Your task to perform on an android device: See recent photos Image 0: 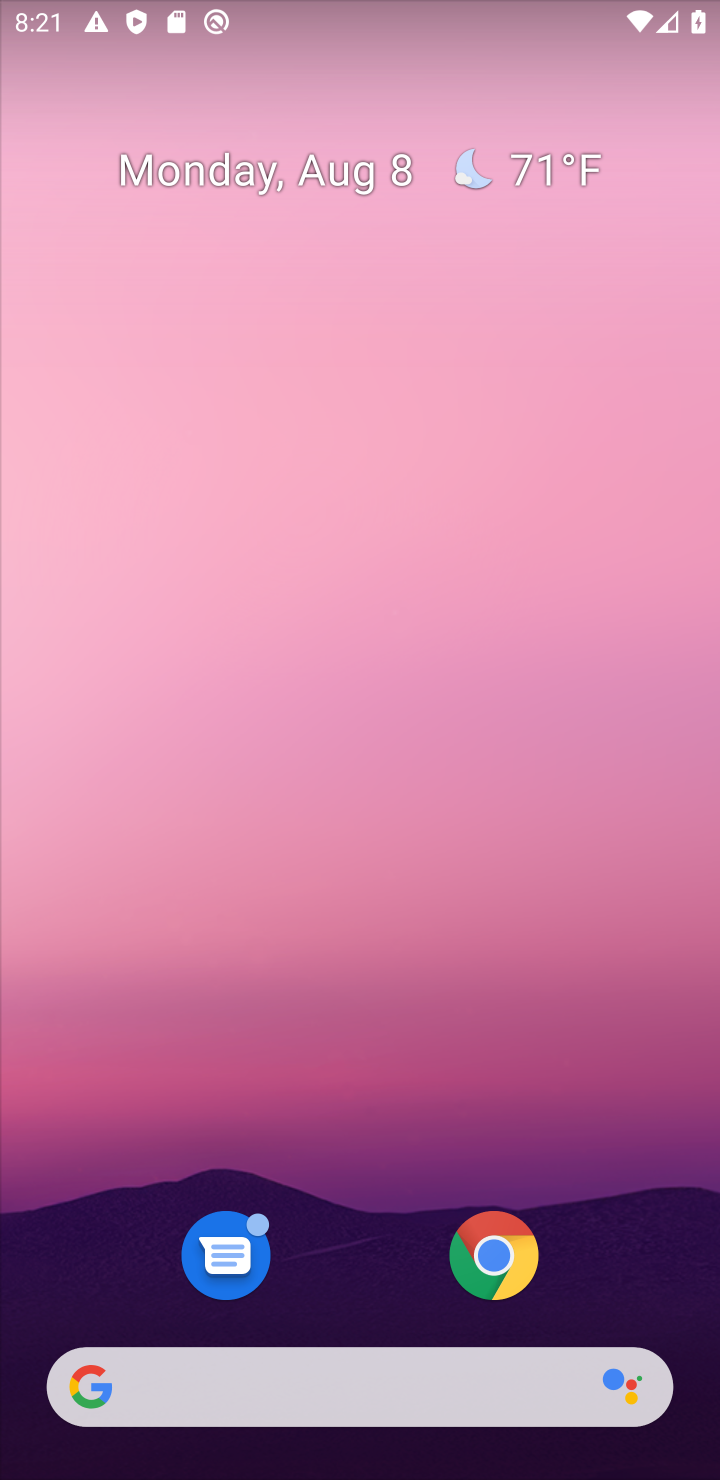
Step 0: drag from (379, 1298) to (365, 45)
Your task to perform on an android device: See recent photos Image 1: 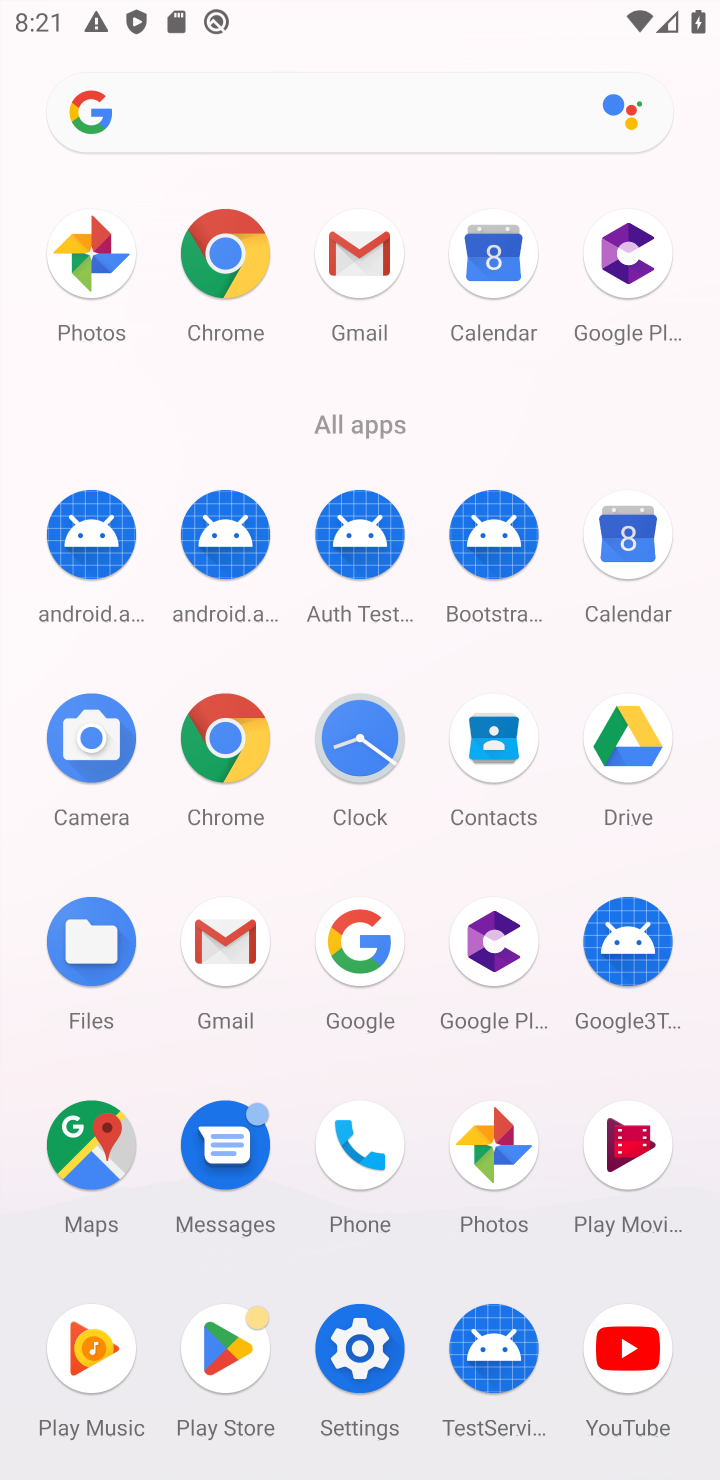
Step 1: click (488, 1134)
Your task to perform on an android device: See recent photos Image 2: 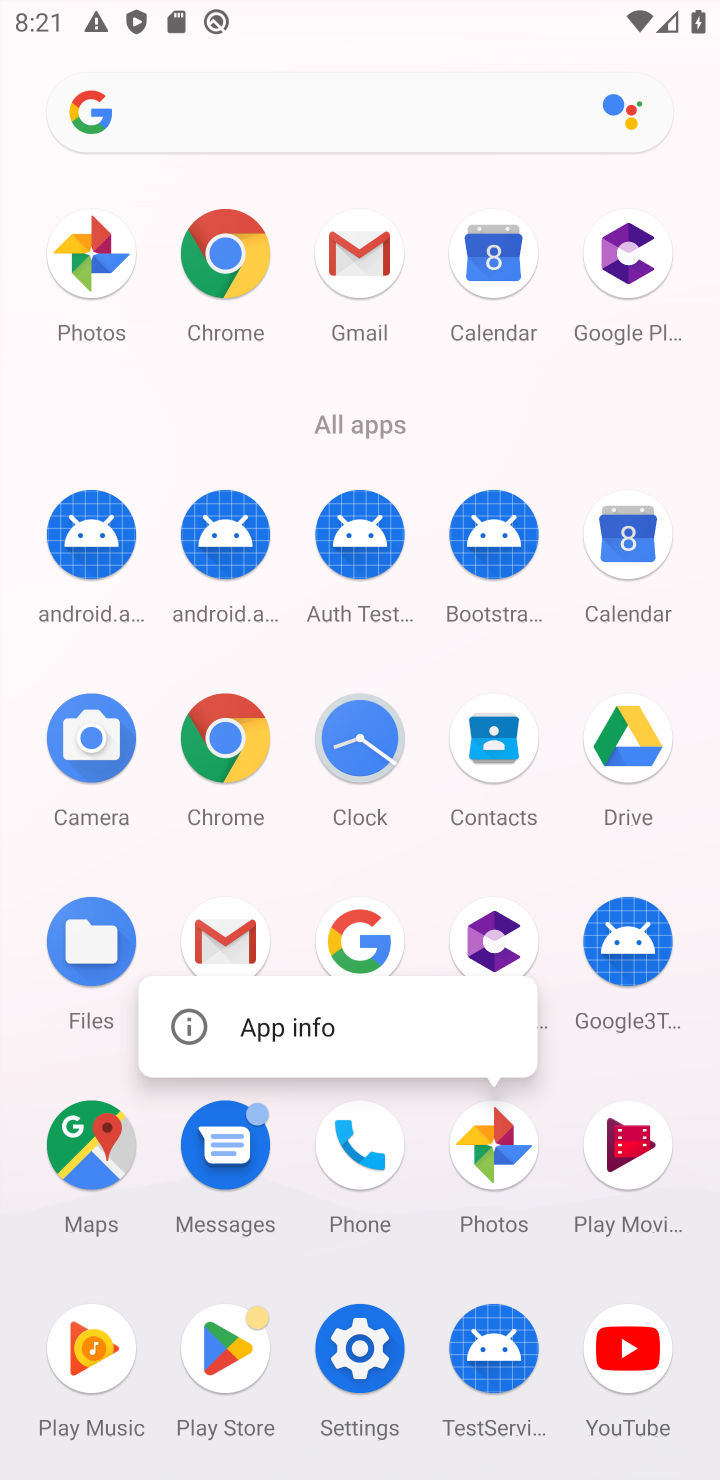
Step 2: click (488, 1134)
Your task to perform on an android device: See recent photos Image 3: 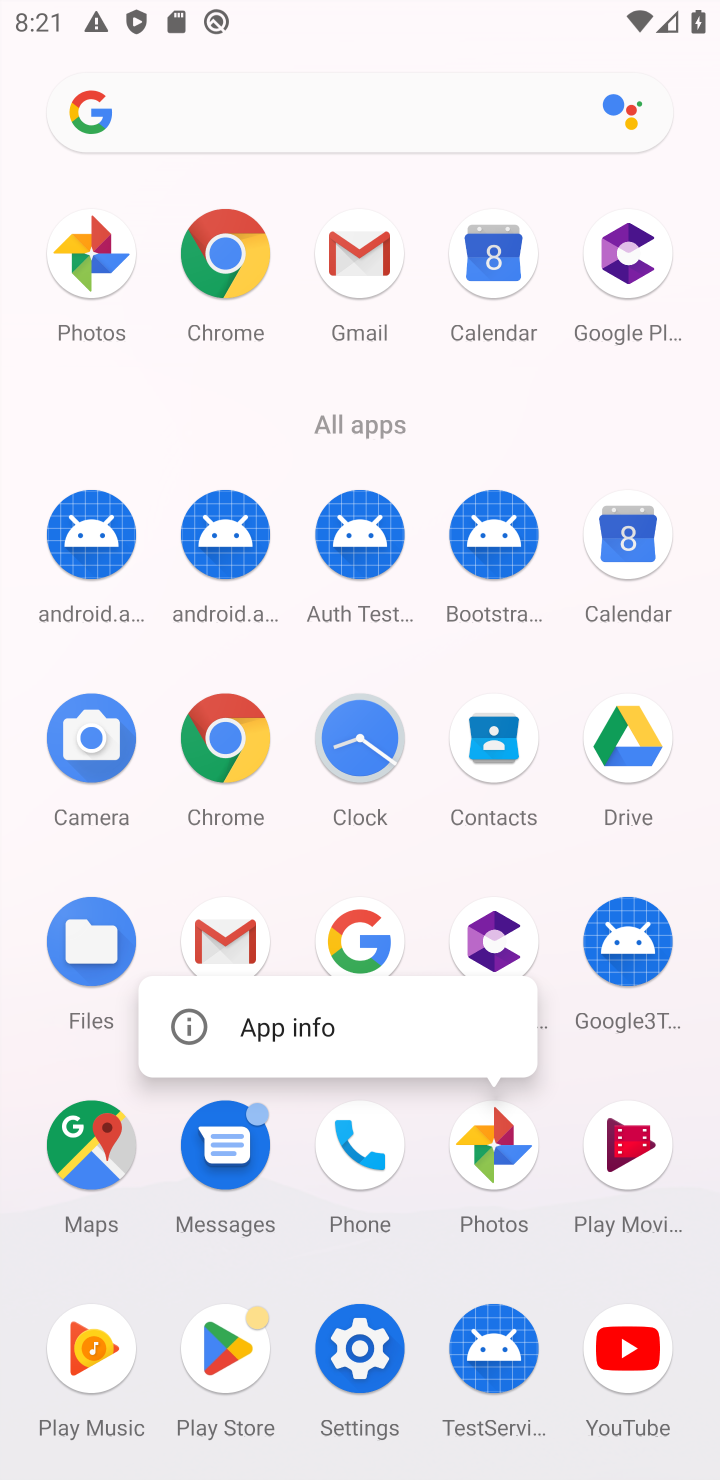
Step 3: click (486, 1134)
Your task to perform on an android device: See recent photos Image 4: 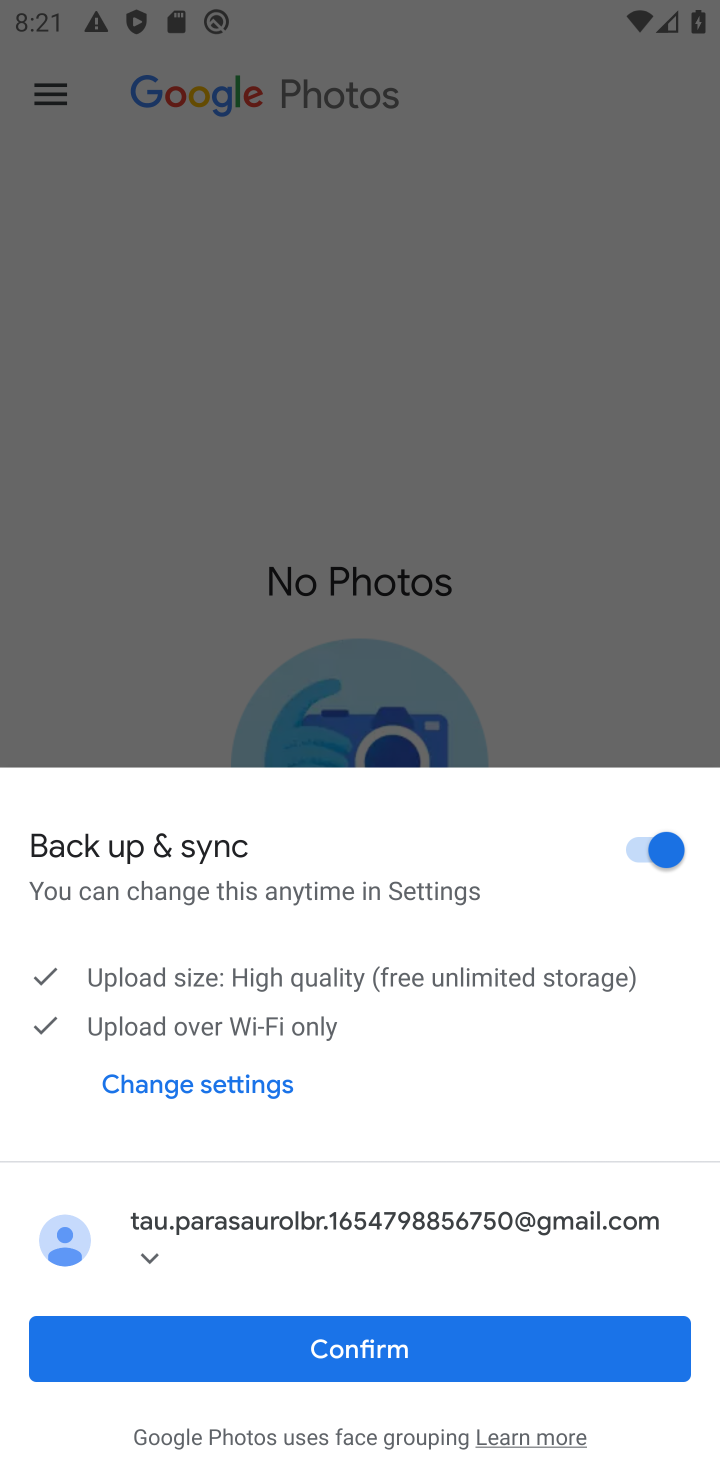
Step 4: click (366, 1347)
Your task to perform on an android device: See recent photos Image 5: 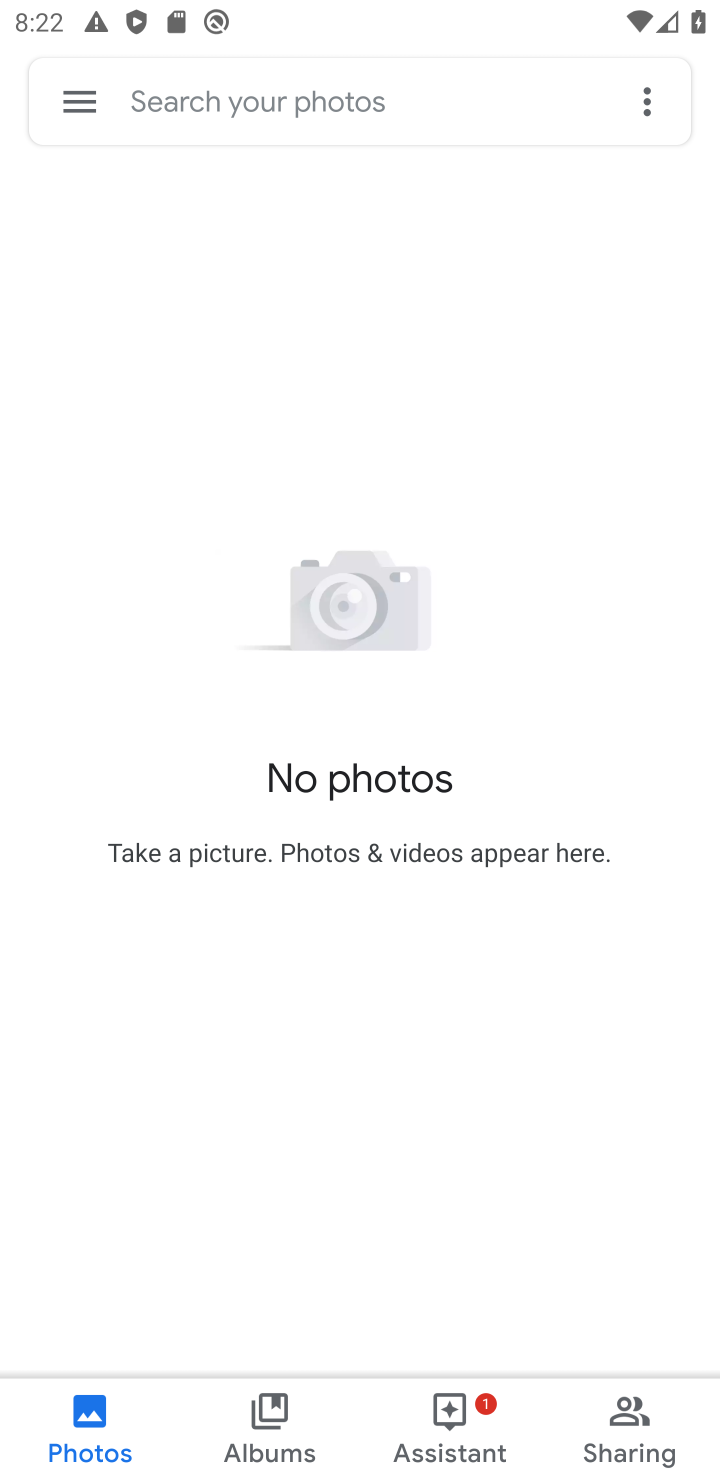
Step 5: task complete